Your task to perform on an android device: Open eBay Image 0: 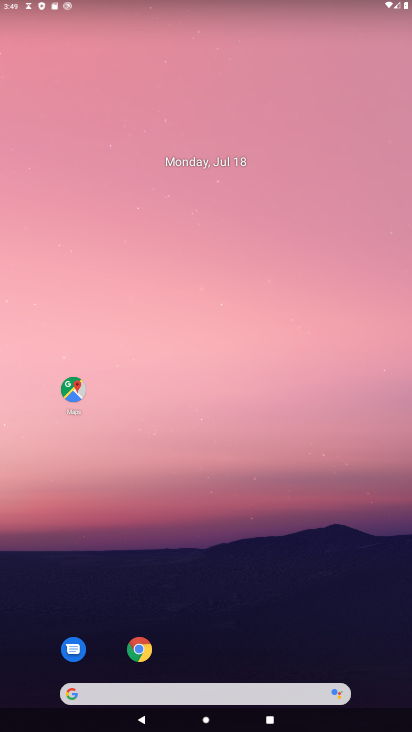
Step 0: press home button
Your task to perform on an android device: Open eBay Image 1: 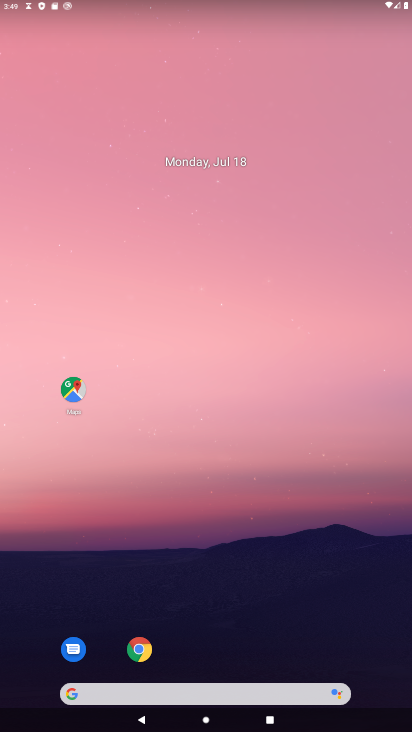
Step 1: click (75, 699)
Your task to perform on an android device: Open eBay Image 2: 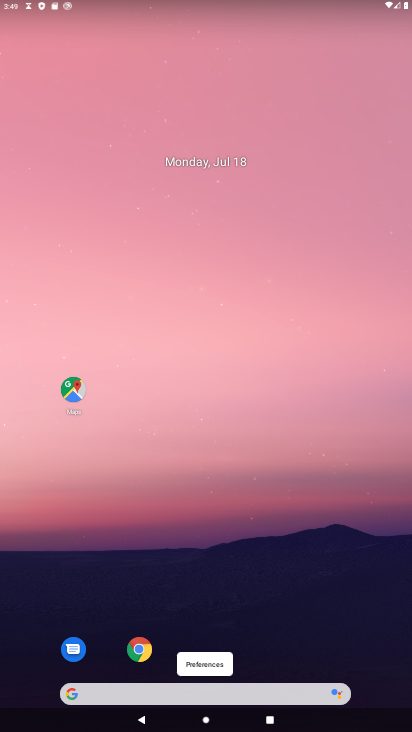
Step 2: click (75, 692)
Your task to perform on an android device: Open eBay Image 3: 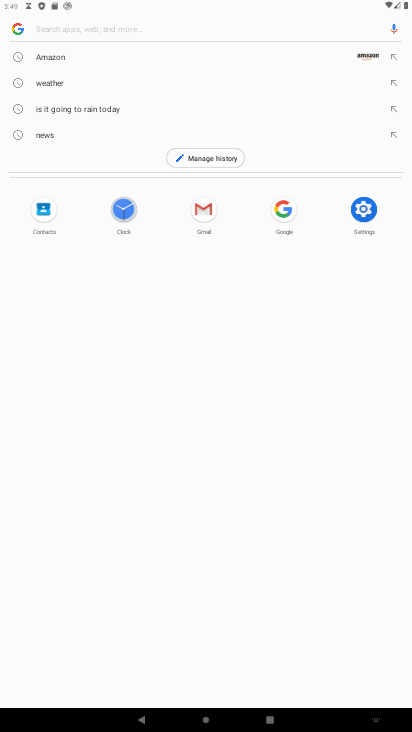
Step 3: type " eBay"
Your task to perform on an android device: Open eBay Image 4: 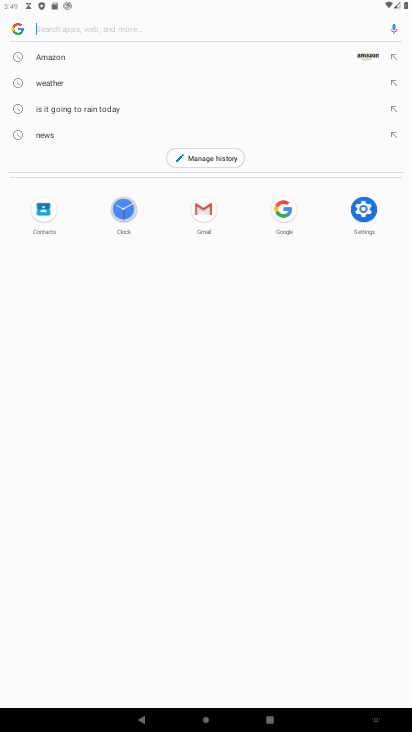
Step 4: click (72, 25)
Your task to perform on an android device: Open eBay Image 5: 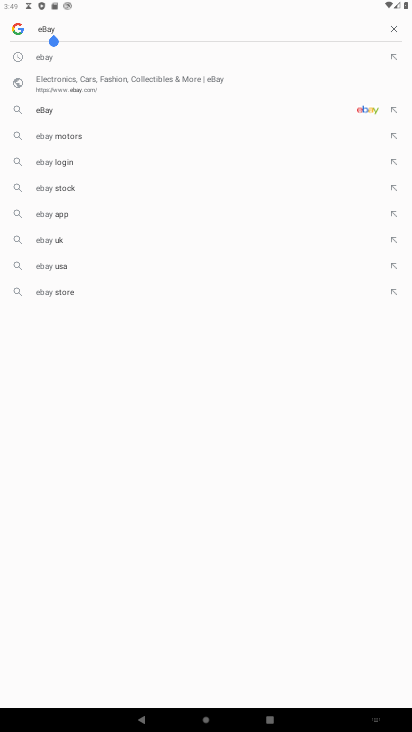
Step 5: press enter
Your task to perform on an android device: Open eBay Image 6: 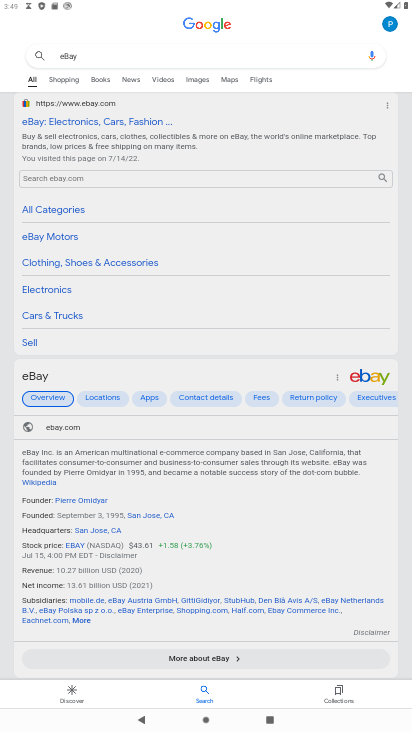
Step 6: click (78, 117)
Your task to perform on an android device: Open eBay Image 7: 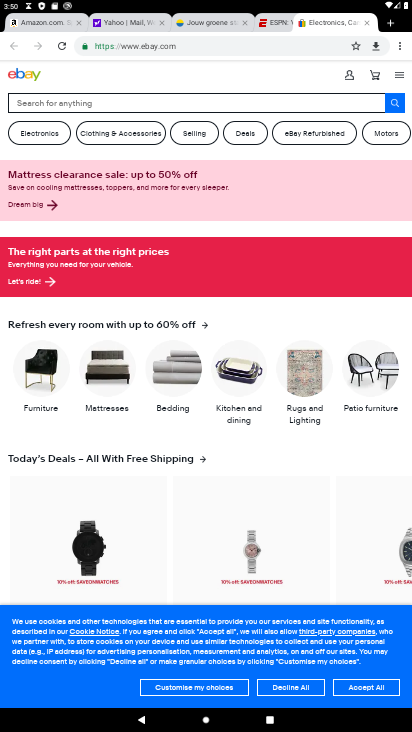
Step 7: task complete